Your task to perform on an android device: Do I have any events this weekend? Image 0: 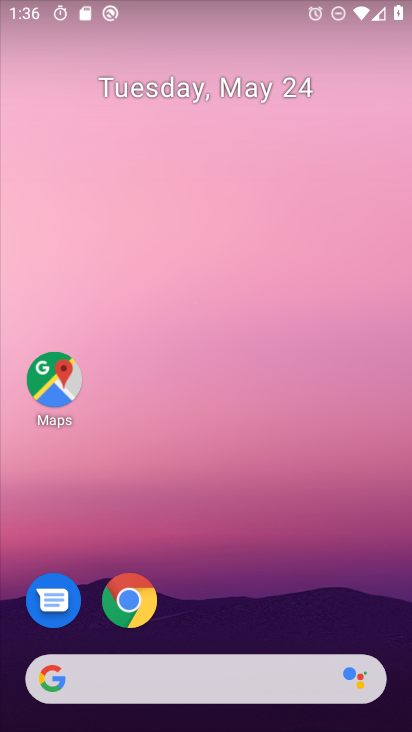
Step 0: drag from (259, 527) to (236, 112)
Your task to perform on an android device: Do I have any events this weekend? Image 1: 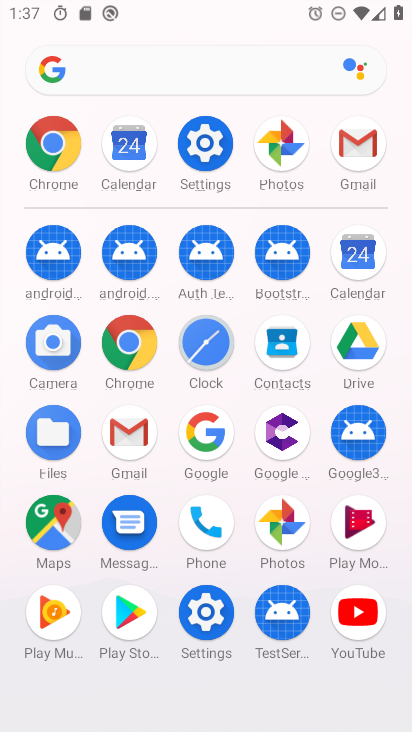
Step 1: click (363, 259)
Your task to perform on an android device: Do I have any events this weekend? Image 2: 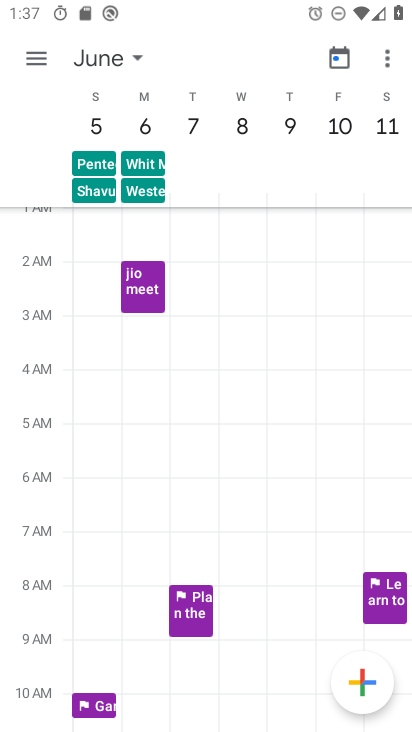
Step 2: click (117, 65)
Your task to perform on an android device: Do I have any events this weekend? Image 3: 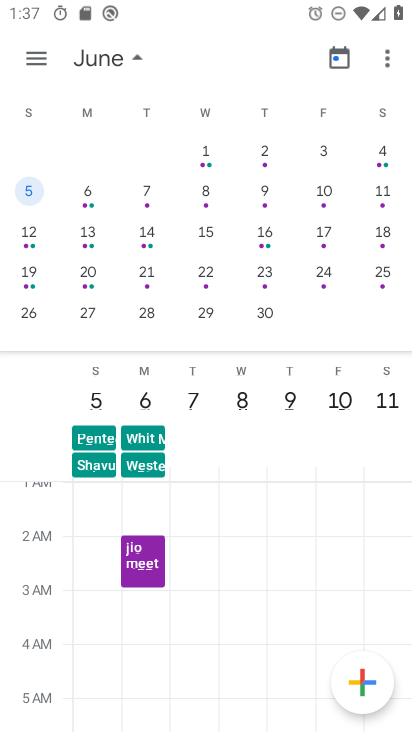
Step 3: drag from (90, 279) to (397, 230)
Your task to perform on an android device: Do I have any events this weekend? Image 4: 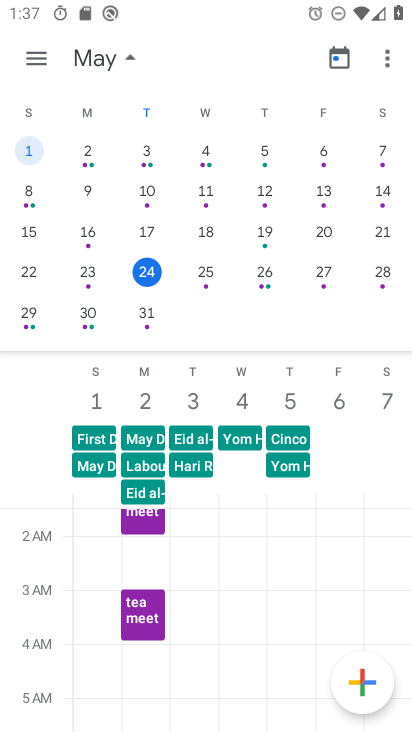
Step 4: click (380, 270)
Your task to perform on an android device: Do I have any events this weekend? Image 5: 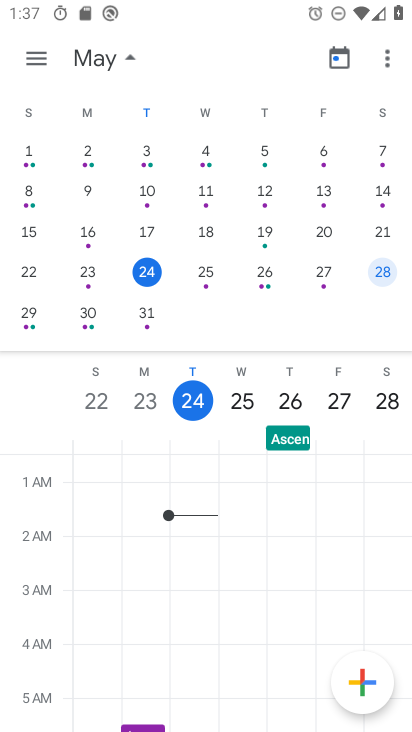
Step 5: click (32, 51)
Your task to perform on an android device: Do I have any events this weekend? Image 6: 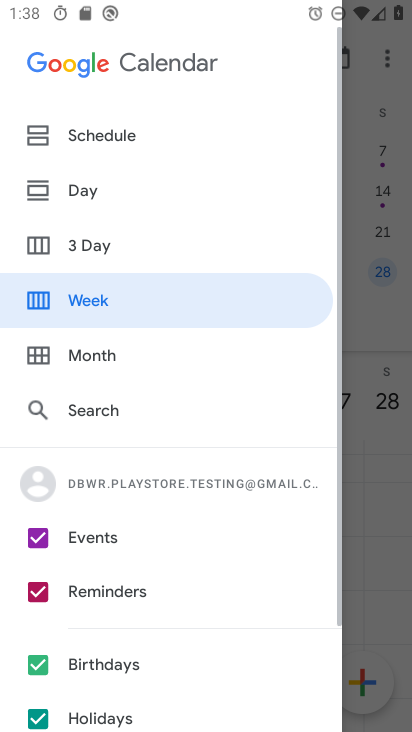
Step 6: click (106, 252)
Your task to perform on an android device: Do I have any events this weekend? Image 7: 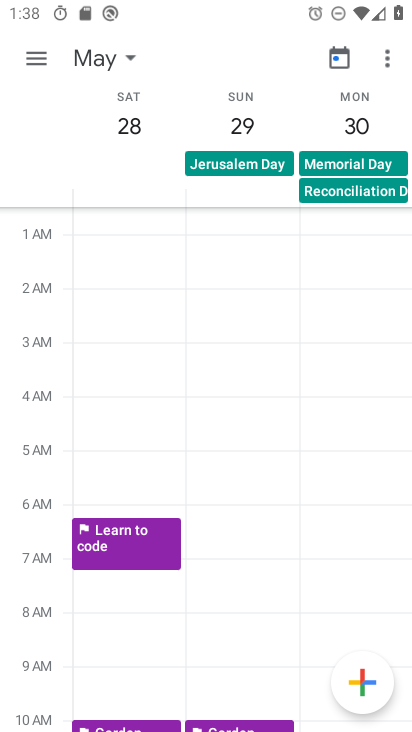
Step 7: task complete